Your task to perform on an android device: change timer sound Image 0: 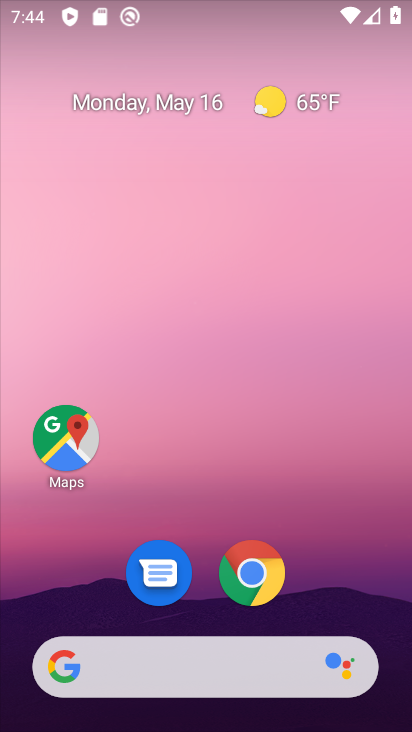
Step 0: drag from (325, 569) to (310, 0)
Your task to perform on an android device: change timer sound Image 1: 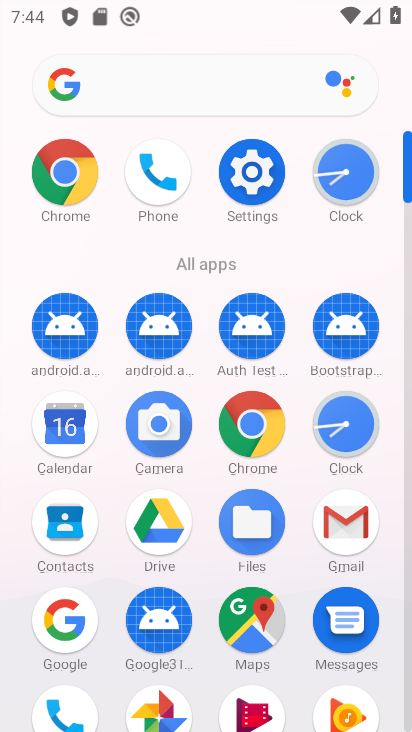
Step 1: click (341, 445)
Your task to perform on an android device: change timer sound Image 2: 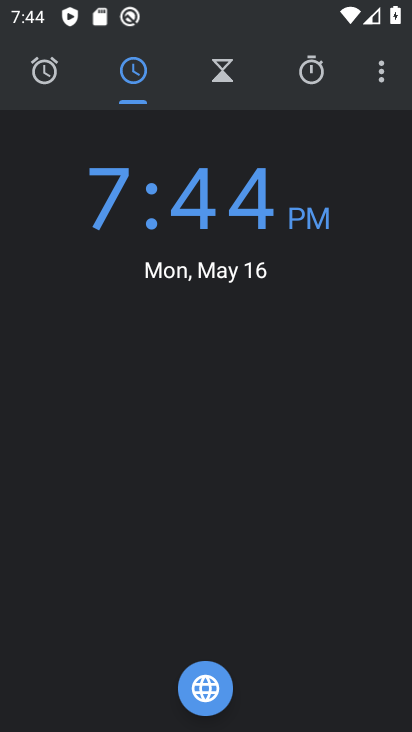
Step 2: click (379, 63)
Your task to perform on an android device: change timer sound Image 3: 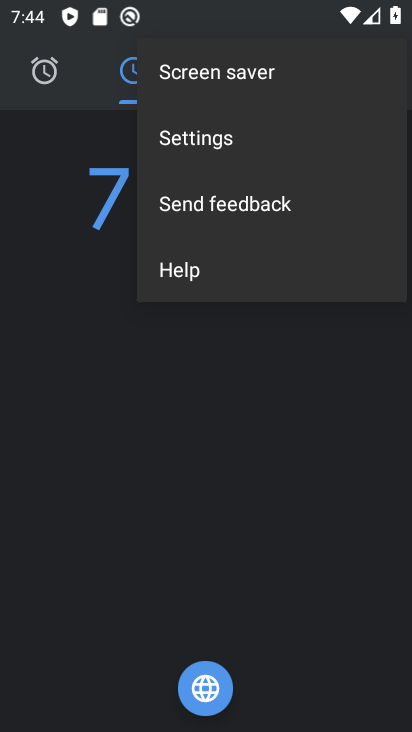
Step 3: click (254, 143)
Your task to perform on an android device: change timer sound Image 4: 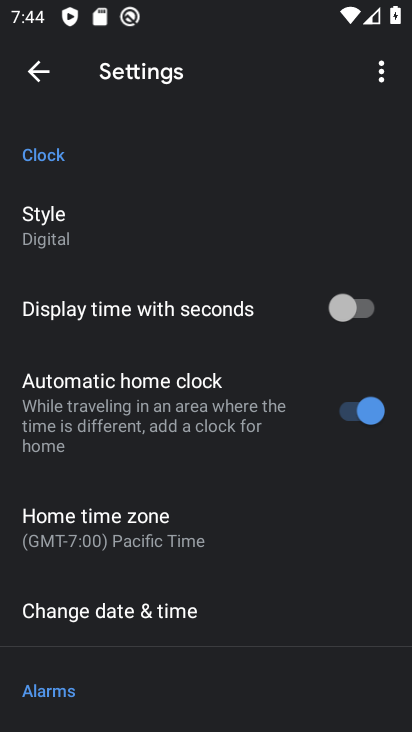
Step 4: drag from (66, 628) to (63, 425)
Your task to perform on an android device: change timer sound Image 5: 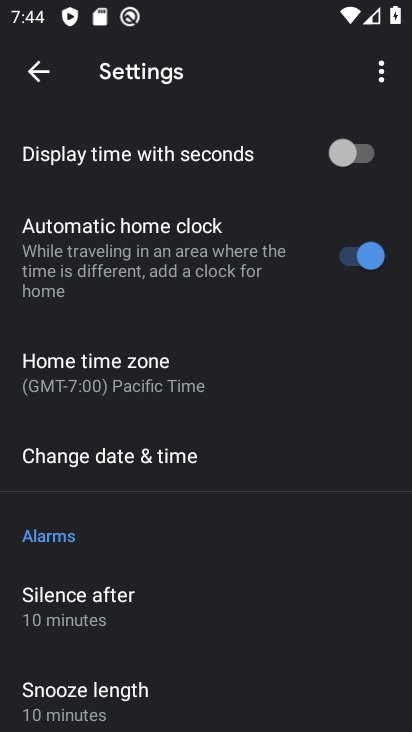
Step 5: drag from (134, 665) to (125, 524)
Your task to perform on an android device: change timer sound Image 6: 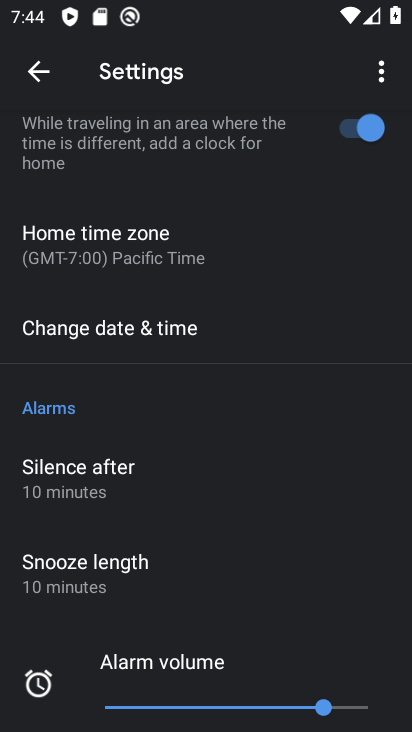
Step 6: drag from (134, 627) to (143, 461)
Your task to perform on an android device: change timer sound Image 7: 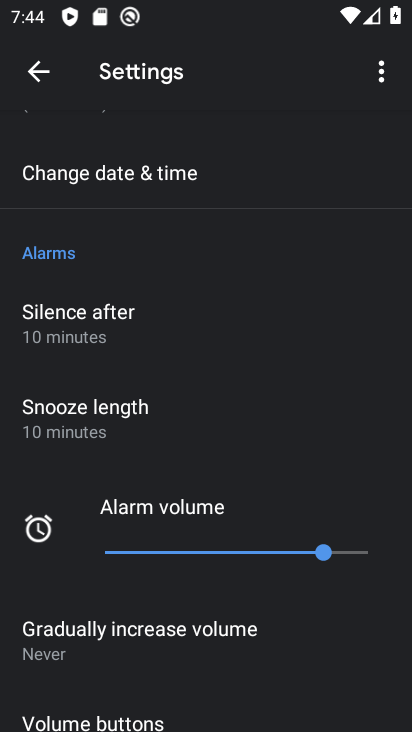
Step 7: drag from (136, 617) to (174, 495)
Your task to perform on an android device: change timer sound Image 8: 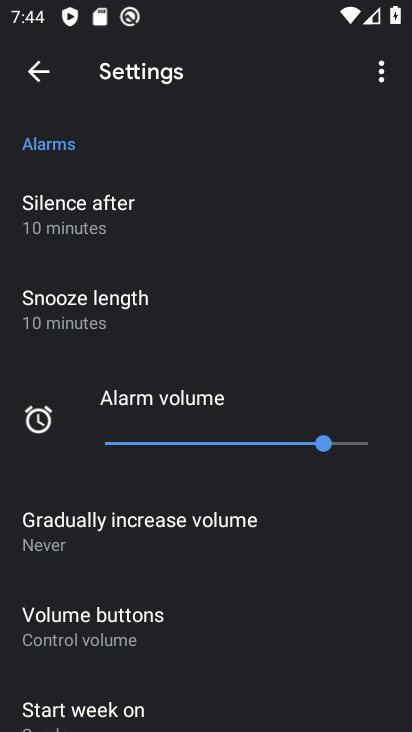
Step 8: drag from (185, 637) to (188, 516)
Your task to perform on an android device: change timer sound Image 9: 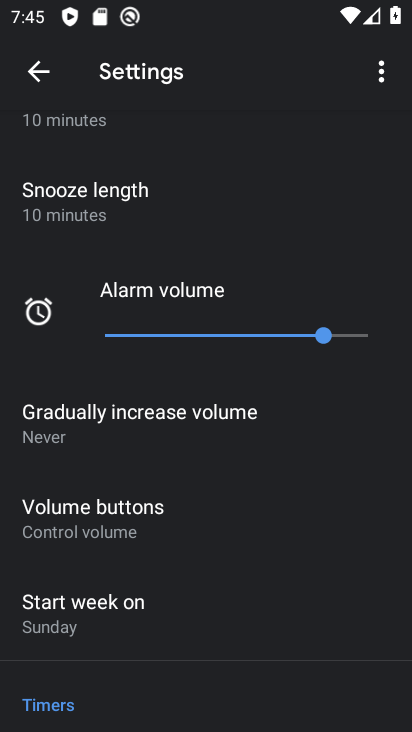
Step 9: drag from (137, 620) to (166, 510)
Your task to perform on an android device: change timer sound Image 10: 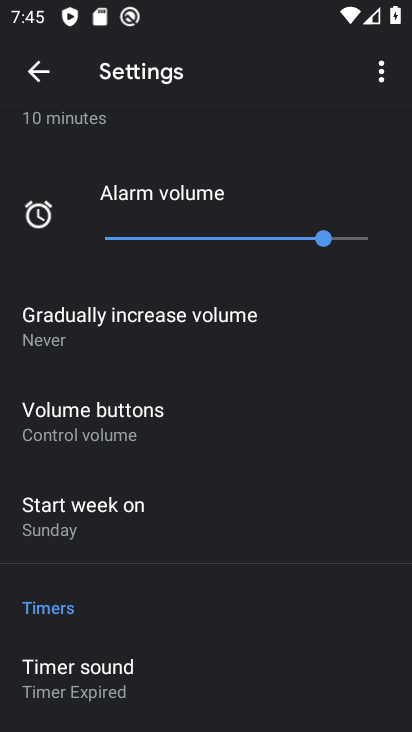
Step 10: drag from (141, 615) to (174, 485)
Your task to perform on an android device: change timer sound Image 11: 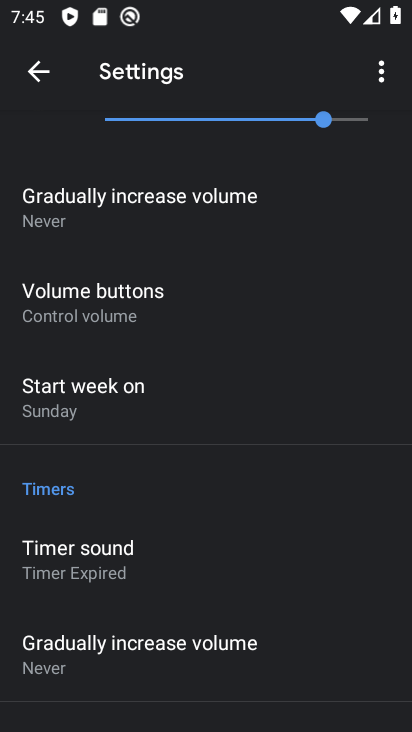
Step 11: click (93, 570)
Your task to perform on an android device: change timer sound Image 12: 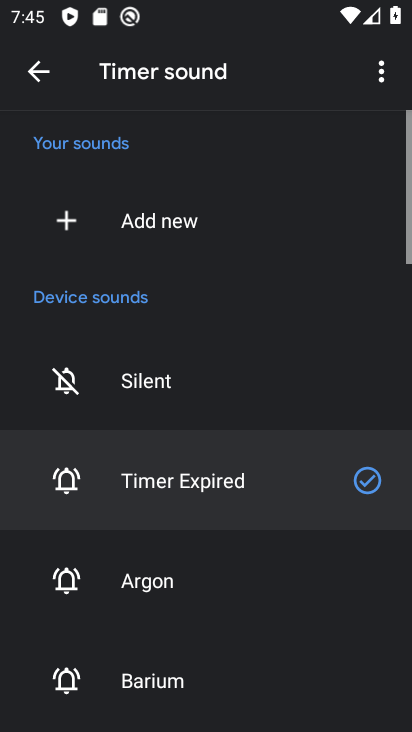
Step 12: click (94, 612)
Your task to perform on an android device: change timer sound Image 13: 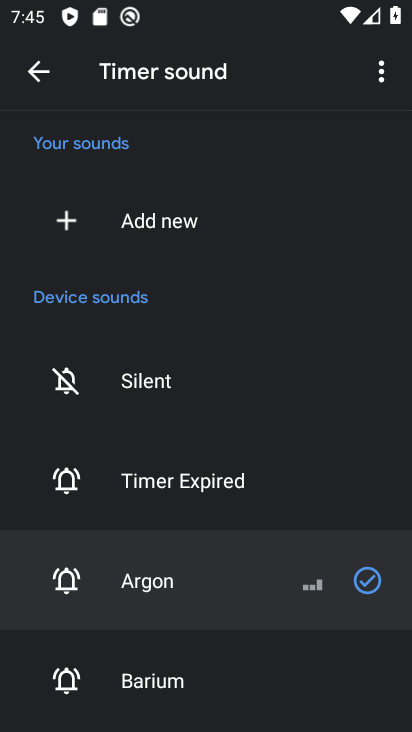
Step 13: task complete